Your task to perform on an android device: Open Google Image 0: 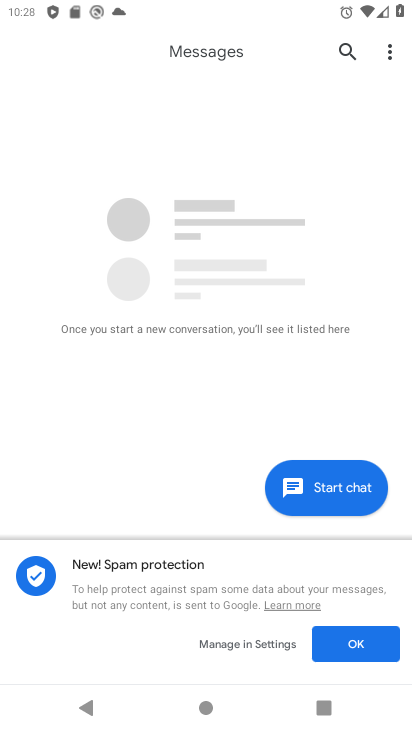
Step 0: press back button
Your task to perform on an android device: Open Google Image 1: 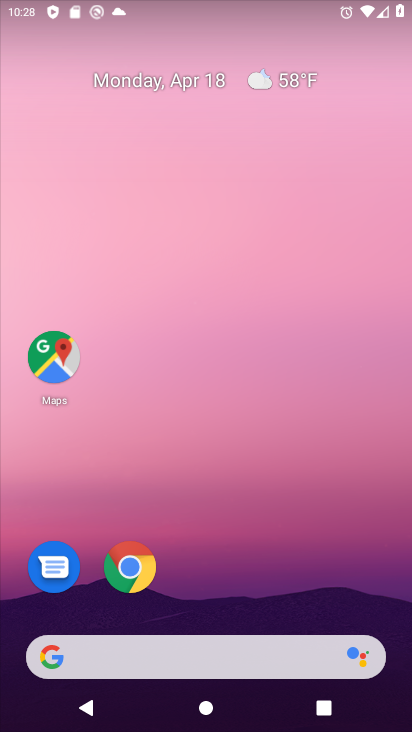
Step 1: drag from (207, 725) to (198, 65)
Your task to perform on an android device: Open Google Image 2: 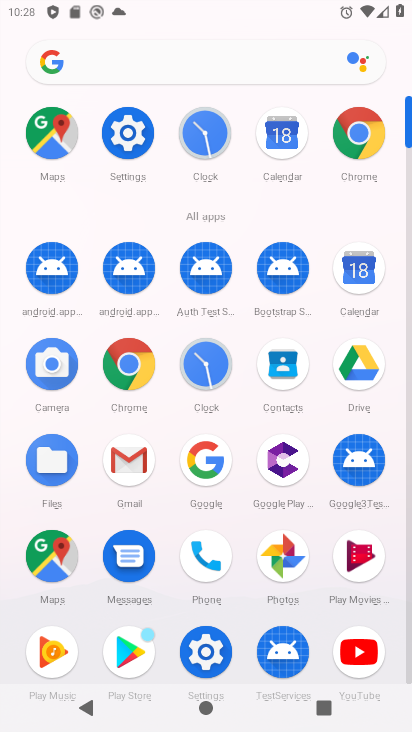
Step 2: click (204, 465)
Your task to perform on an android device: Open Google Image 3: 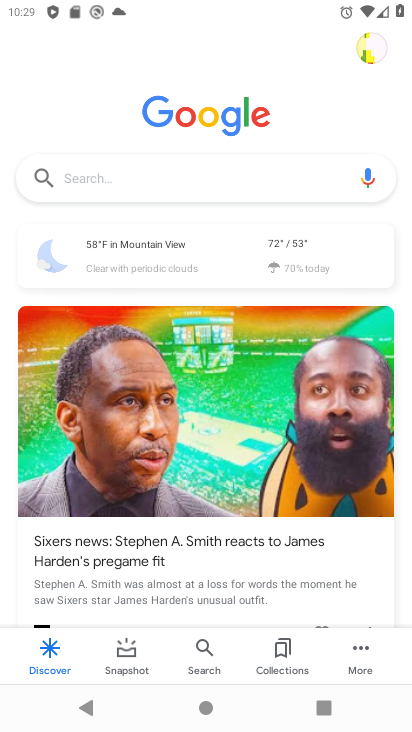
Step 3: task complete